Your task to perform on an android device: delete a single message in the gmail app Image 0: 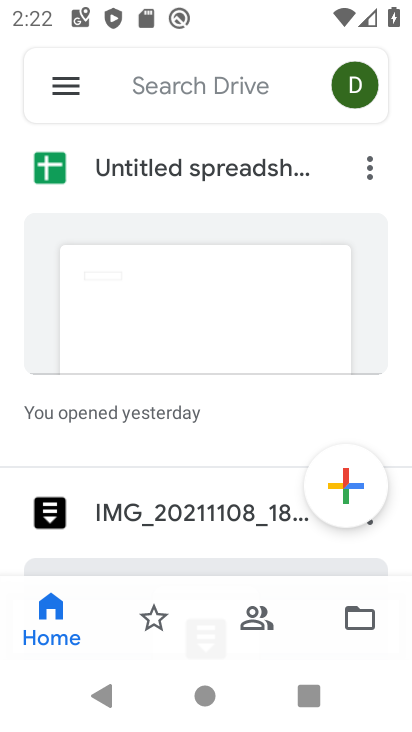
Step 0: press home button
Your task to perform on an android device: delete a single message in the gmail app Image 1: 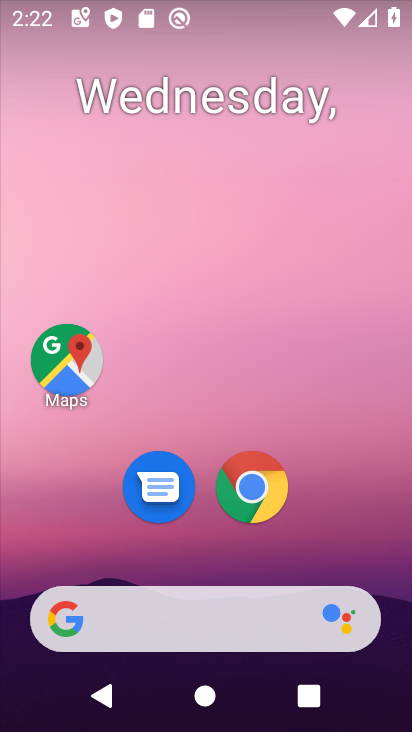
Step 1: drag from (336, 525) to (208, 5)
Your task to perform on an android device: delete a single message in the gmail app Image 2: 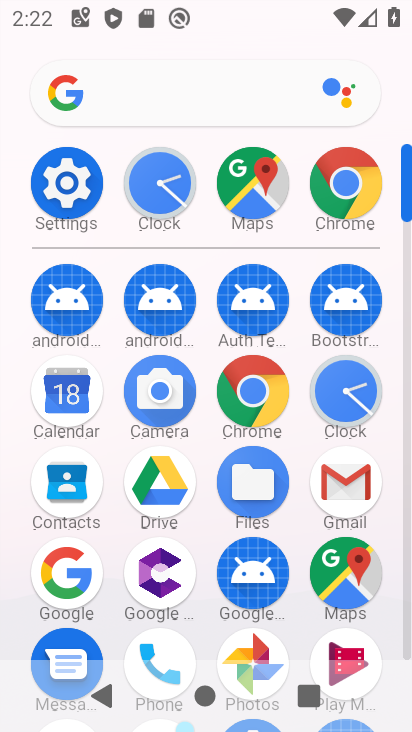
Step 2: click (337, 479)
Your task to perform on an android device: delete a single message in the gmail app Image 3: 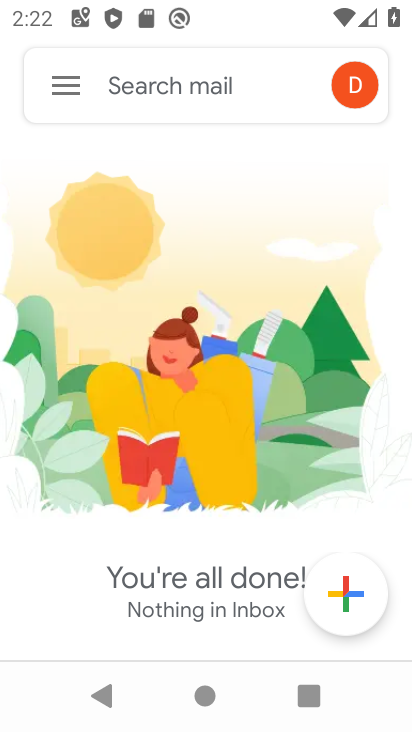
Step 3: click (63, 85)
Your task to perform on an android device: delete a single message in the gmail app Image 4: 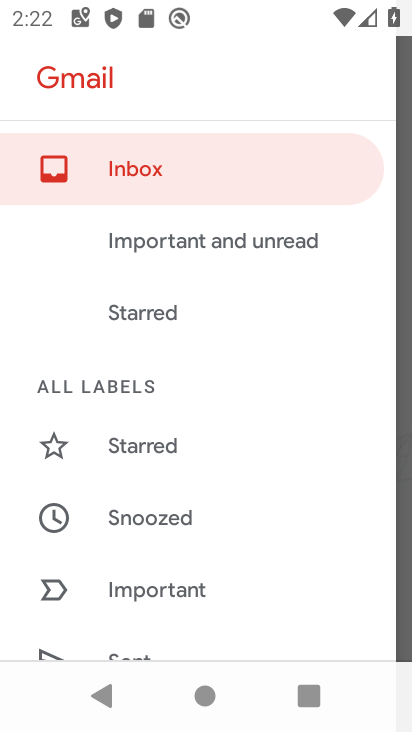
Step 4: drag from (306, 434) to (302, 161)
Your task to perform on an android device: delete a single message in the gmail app Image 5: 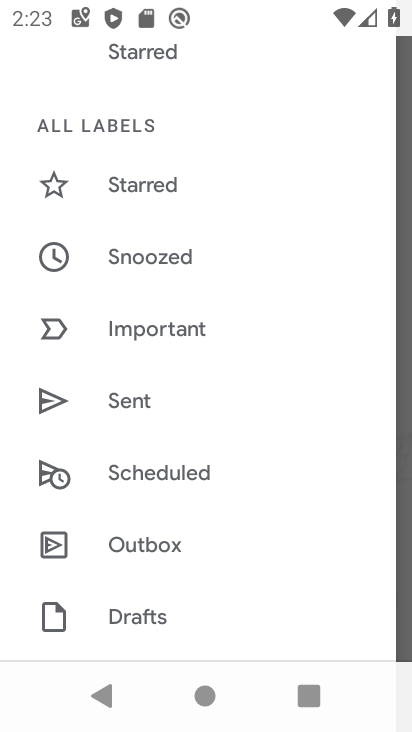
Step 5: drag from (274, 482) to (263, 171)
Your task to perform on an android device: delete a single message in the gmail app Image 6: 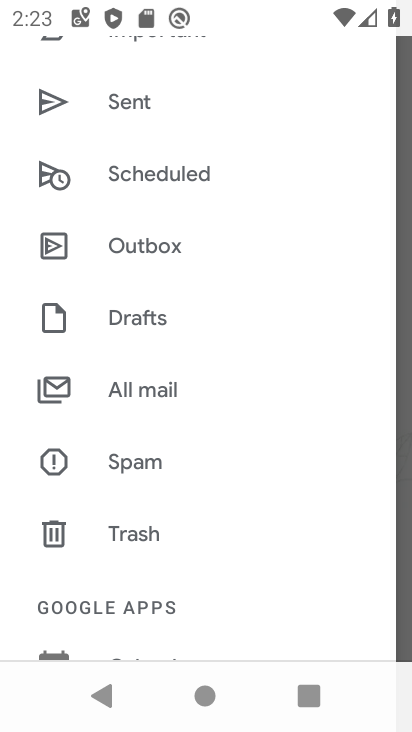
Step 6: click (146, 395)
Your task to perform on an android device: delete a single message in the gmail app Image 7: 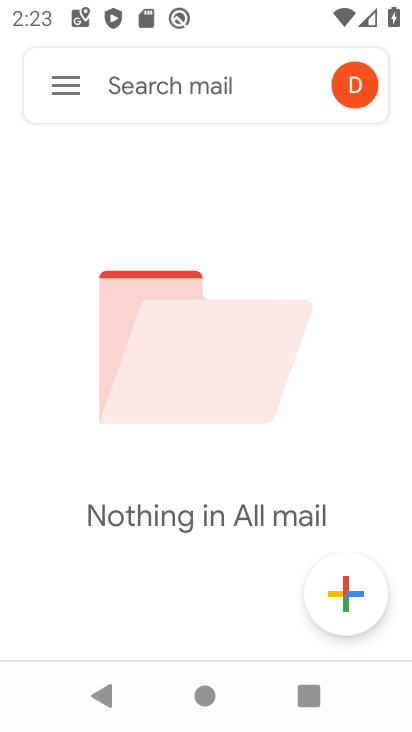
Step 7: task complete